Your task to perform on an android device: check android version Image 0: 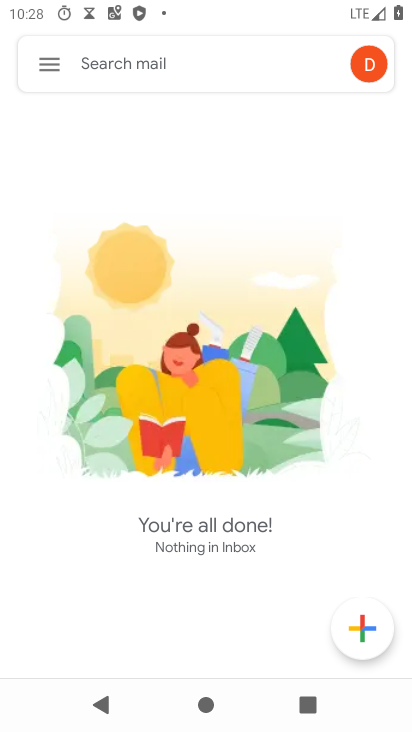
Step 0: press home button
Your task to perform on an android device: check android version Image 1: 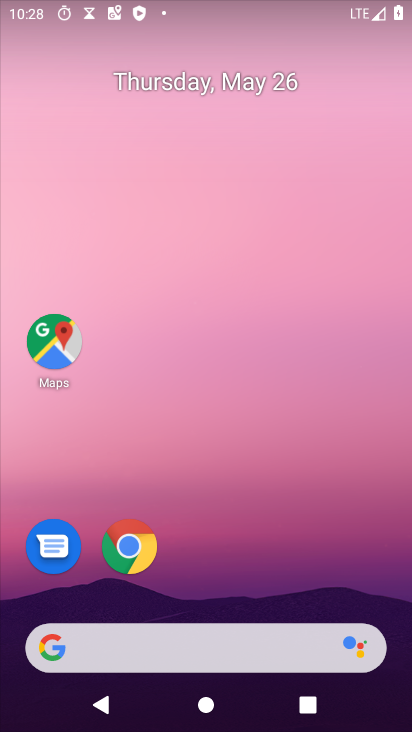
Step 1: drag from (374, 575) to (373, 170)
Your task to perform on an android device: check android version Image 2: 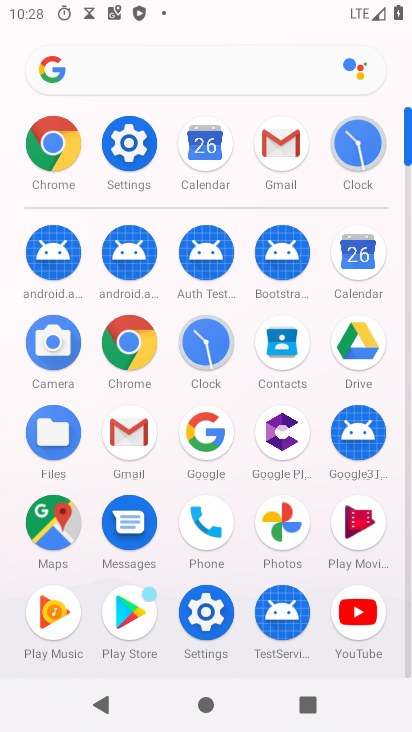
Step 2: click (210, 605)
Your task to perform on an android device: check android version Image 3: 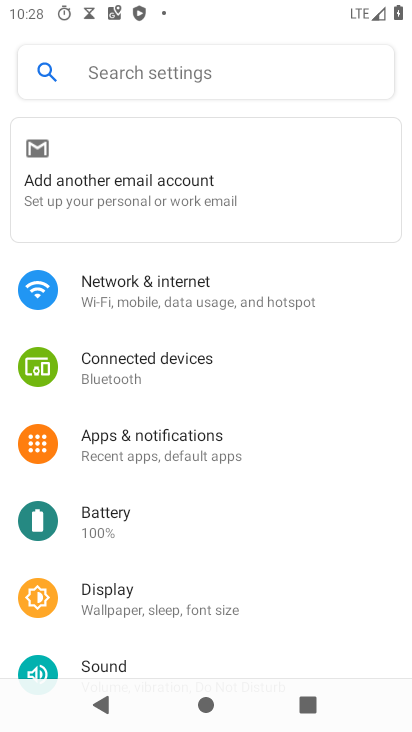
Step 3: drag from (232, 654) to (291, 350)
Your task to perform on an android device: check android version Image 4: 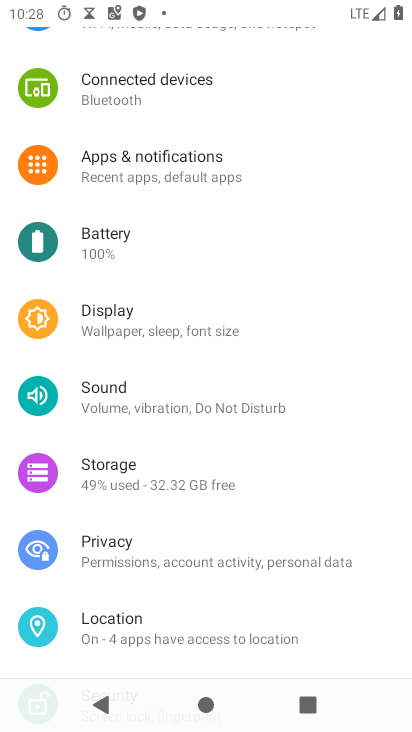
Step 4: drag from (262, 606) to (307, 320)
Your task to perform on an android device: check android version Image 5: 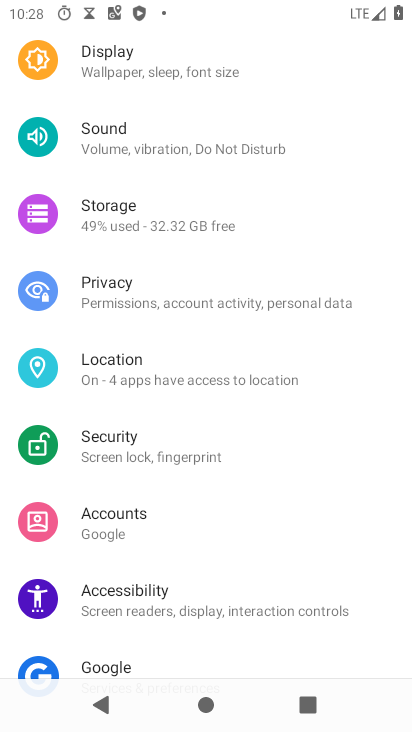
Step 5: drag from (195, 662) to (303, 305)
Your task to perform on an android device: check android version Image 6: 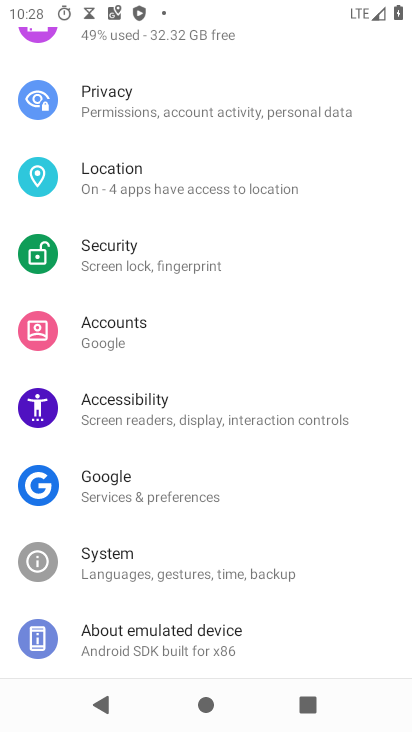
Step 6: click (218, 644)
Your task to perform on an android device: check android version Image 7: 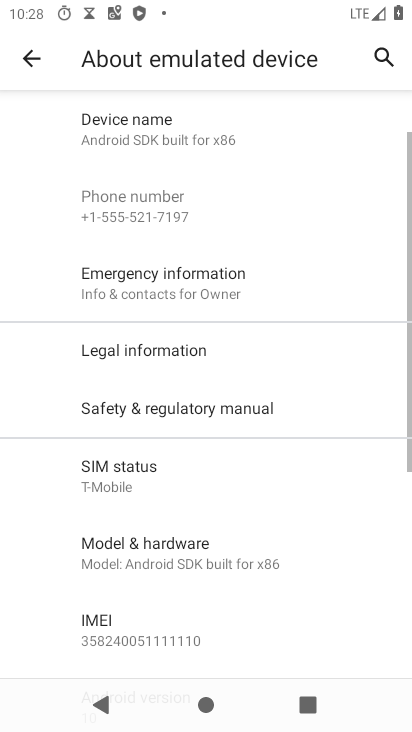
Step 7: drag from (250, 624) to (323, 323)
Your task to perform on an android device: check android version Image 8: 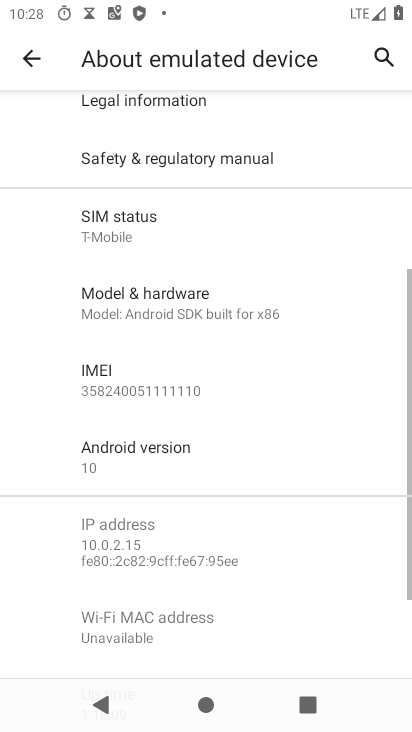
Step 8: click (226, 456)
Your task to perform on an android device: check android version Image 9: 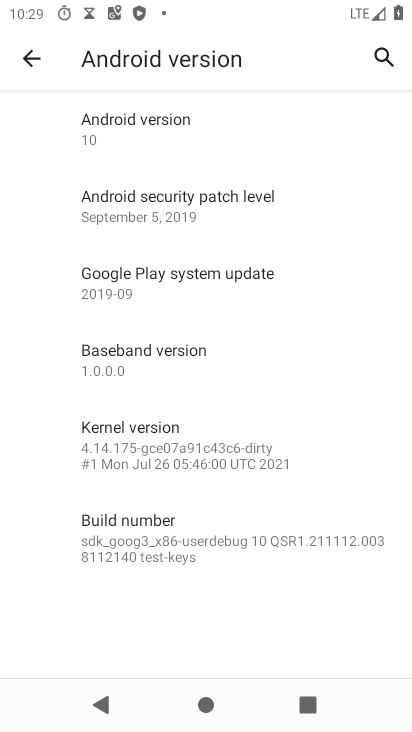
Step 9: task complete